Your task to perform on an android device: Open the web browser Image 0: 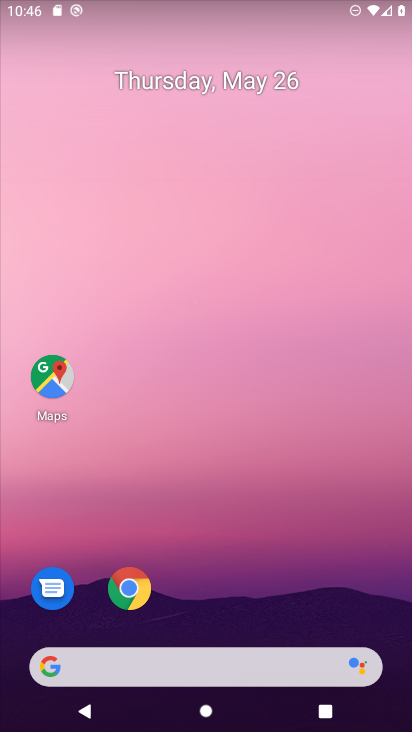
Step 0: click (130, 589)
Your task to perform on an android device: Open the web browser Image 1: 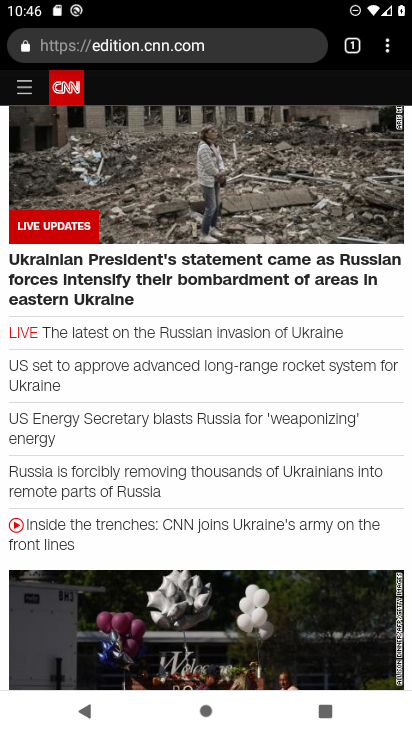
Step 1: task complete